Your task to perform on an android device: toggle priority inbox in the gmail app Image 0: 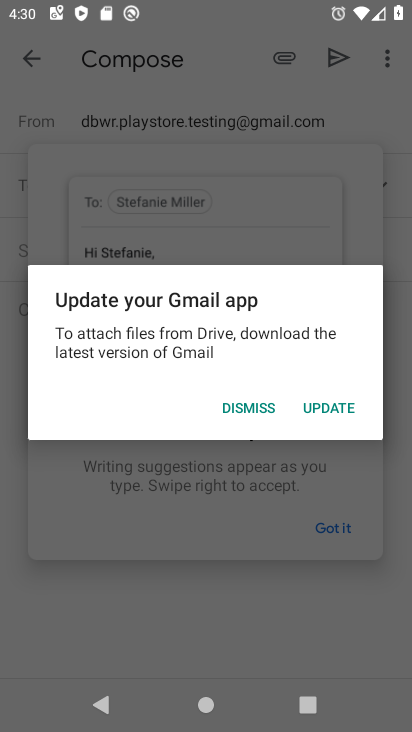
Step 0: click (269, 400)
Your task to perform on an android device: toggle priority inbox in the gmail app Image 1: 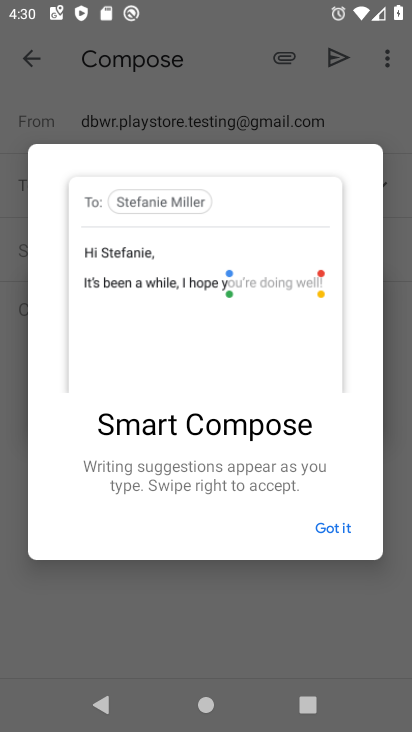
Step 1: click (341, 525)
Your task to perform on an android device: toggle priority inbox in the gmail app Image 2: 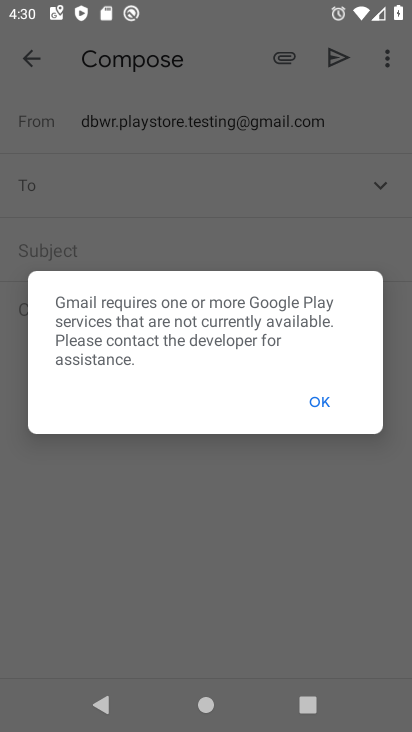
Step 2: press back button
Your task to perform on an android device: toggle priority inbox in the gmail app Image 3: 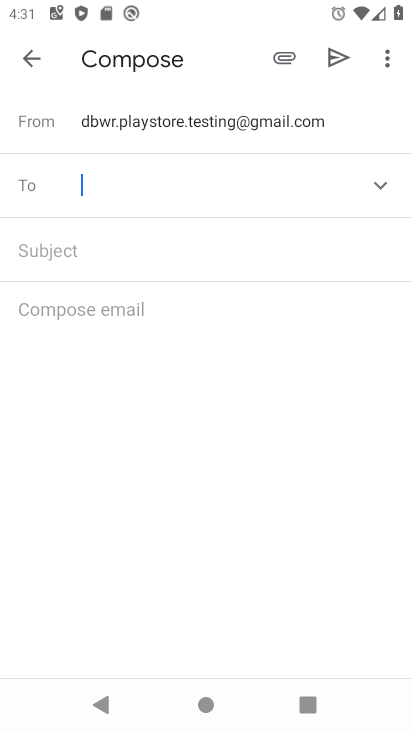
Step 3: click (26, 49)
Your task to perform on an android device: toggle priority inbox in the gmail app Image 4: 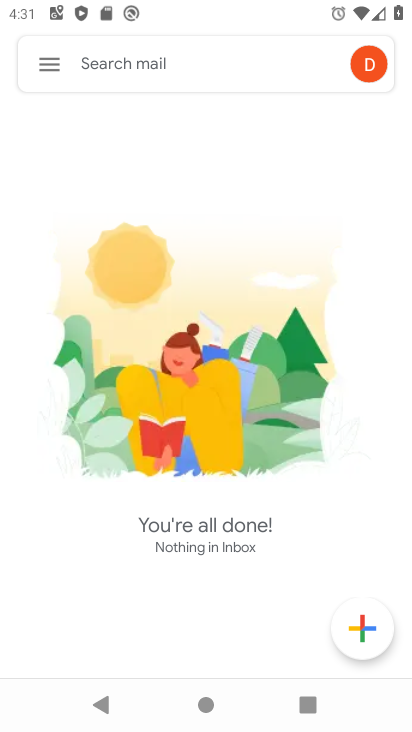
Step 4: press home button
Your task to perform on an android device: toggle priority inbox in the gmail app Image 5: 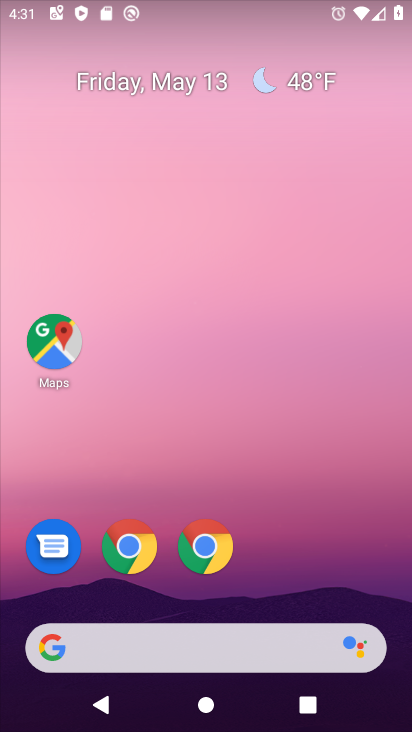
Step 5: drag from (275, 567) to (194, 0)
Your task to perform on an android device: toggle priority inbox in the gmail app Image 6: 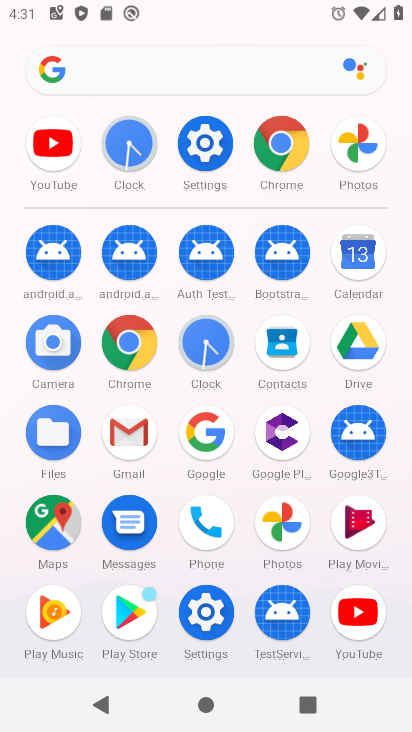
Step 6: click (128, 433)
Your task to perform on an android device: toggle priority inbox in the gmail app Image 7: 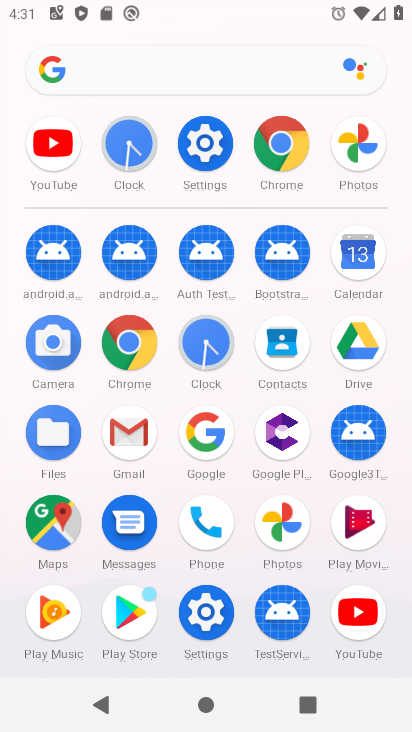
Step 7: click (128, 433)
Your task to perform on an android device: toggle priority inbox in the gmail app Image 8: 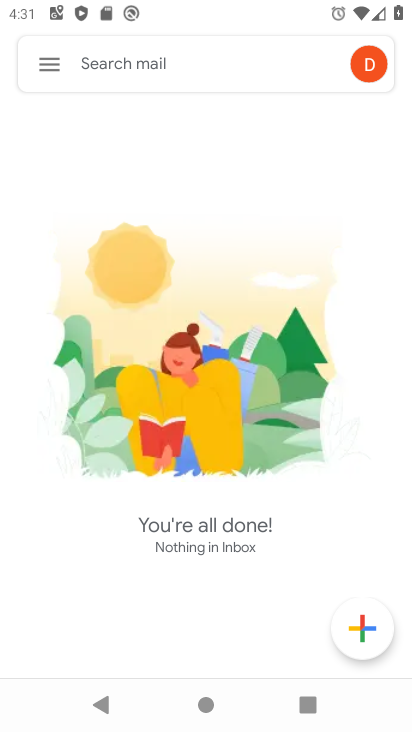
Step 8: click (45, 64)
Your task to perform on an android device: toggle priority inbox in the gmail app Image 9: 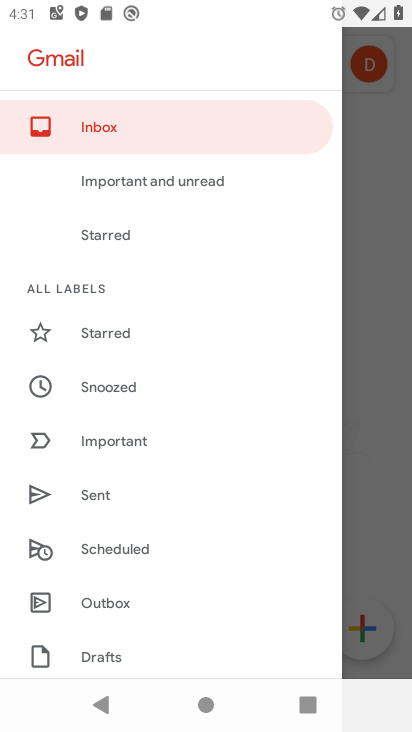
Step 9: drag from (117, 571) to (15, 91)
Your task to perform on an android device: toggle priority inbox in the gmail app Image 10: 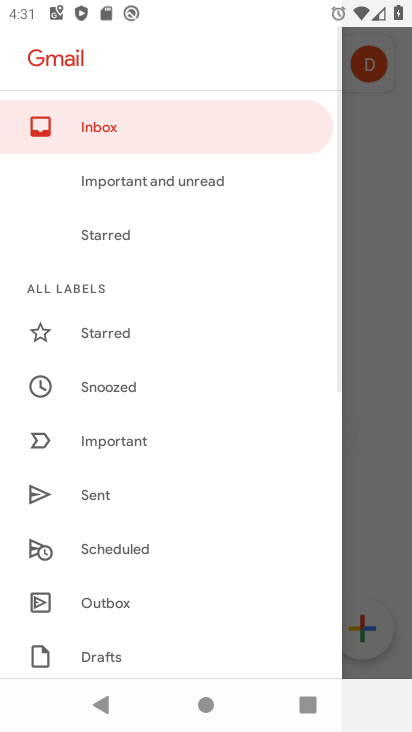
Step 10: drag from (113, 497) to (71, 126)
Your task to perform on an android device: toggle priority inbox in the gmail app Image 11: 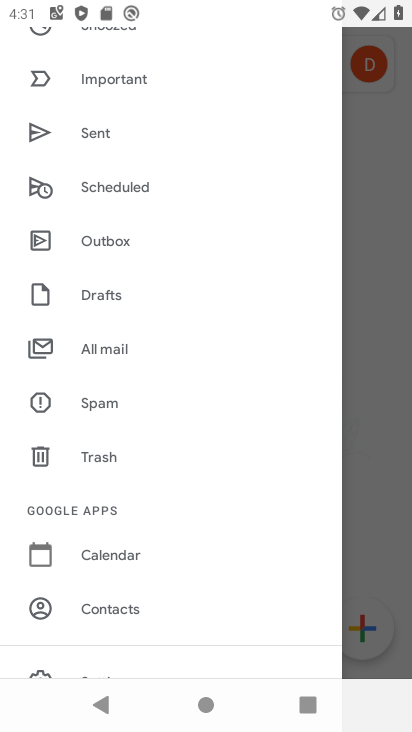
Step 11: drag from (166, 574) to (79, 8)
Your task to perform on an android device: toggle priority inbox in the gmail app Image 12: 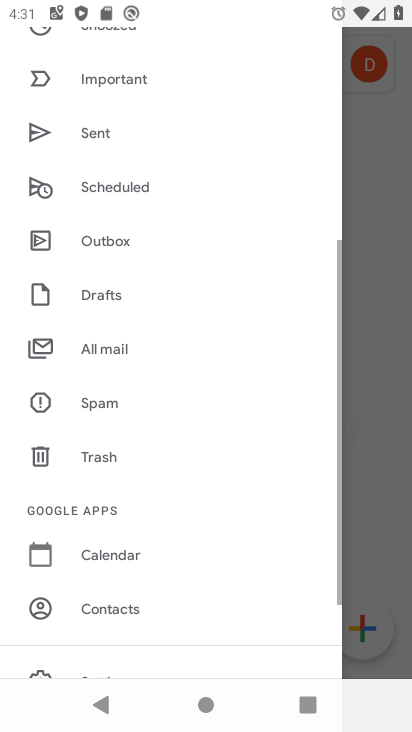
Step 12: drag from (89, 456) to (136, 46)
Your task to perform on an android device: toggle priority inbox in the gmail app Image 13: 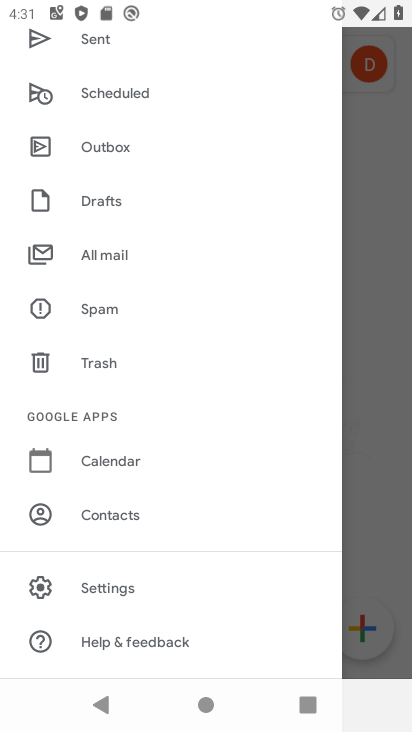
Step 13: click (95, 592)
Your task to perform on an android device: toggle priority inbox in the gmail app Image 14: 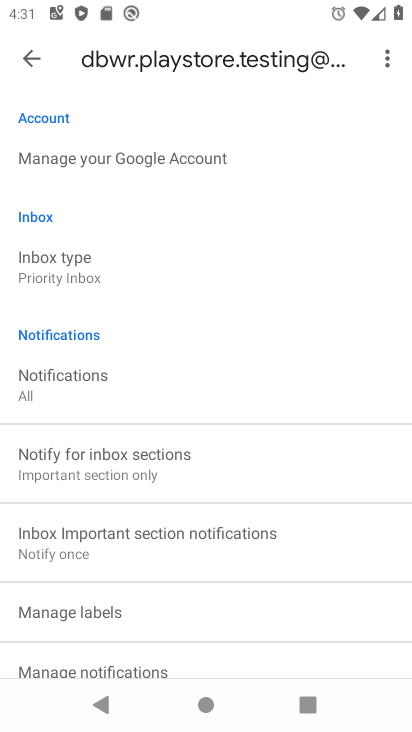
Step 14: click (52, 278)
Your task to perform on an android device: toggle priority inbox in the gmail app Image 15: 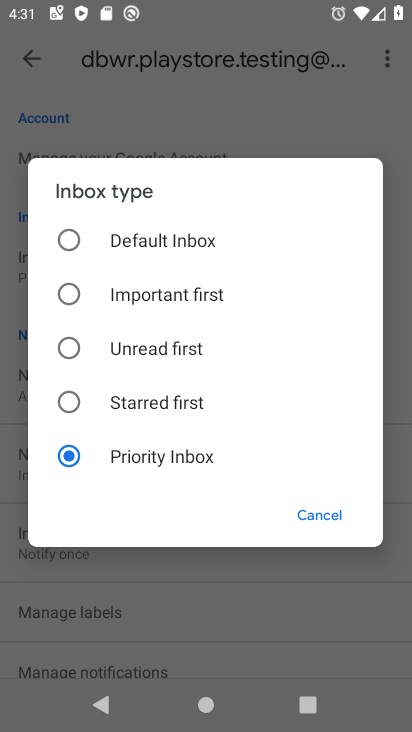
Step 15: click (76, 441)
Your task to perform on an android device: toggle priority inbox in the gmail app Image 16: 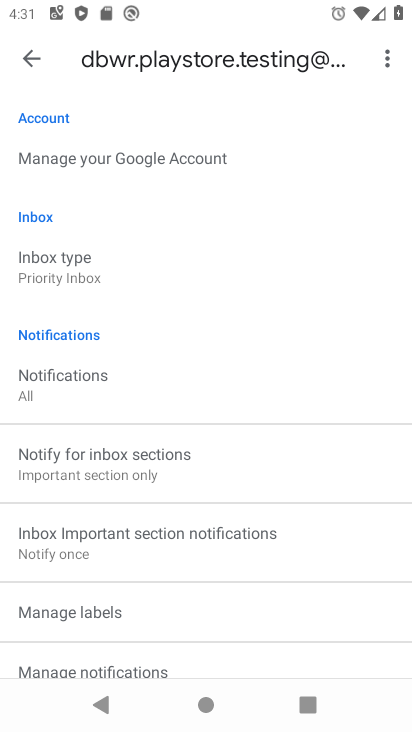
Step 16: task complete